Your task to perform on an android device: Show me productivity apps on the Play Store Image 0: 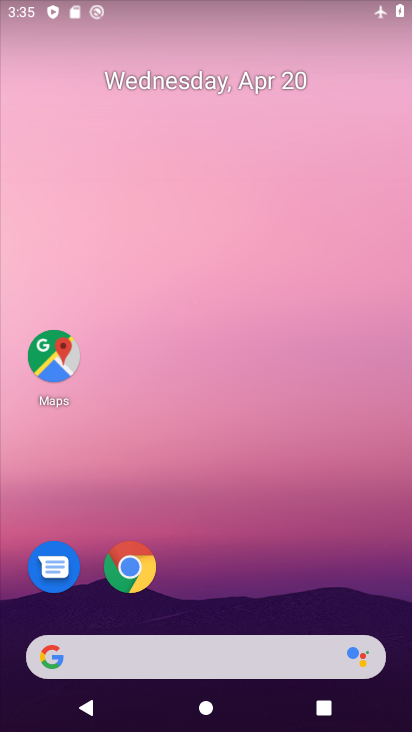
Step 0: drag from (293, 537) to (241, 147)
Your task to perform on an android device: Show me productivity apps on the Play Store Image 1: 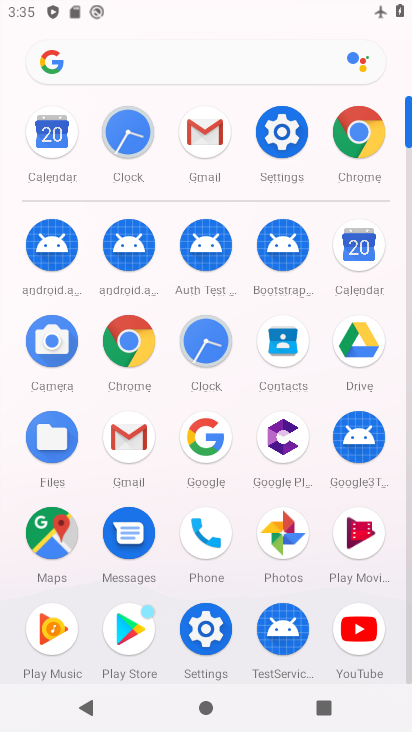
Step 1: click (131, 608)
Your task to perform on an android device: Show me productivity apps on the Play Store Image 2: 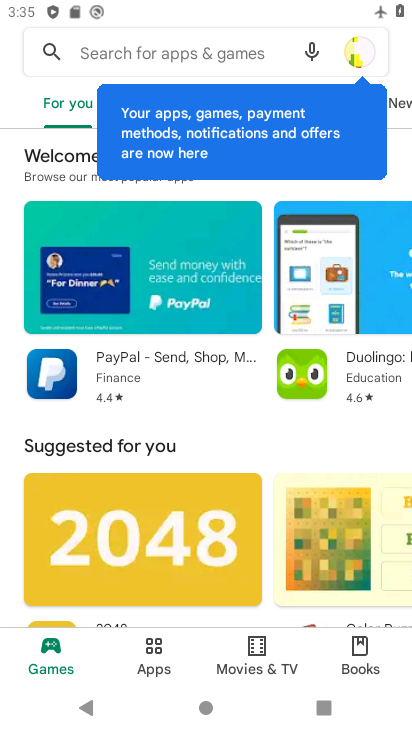
Step 2: click (151, 653)
Your task to perform on an android device: Show me productivity apps on the Play Store Image 3: 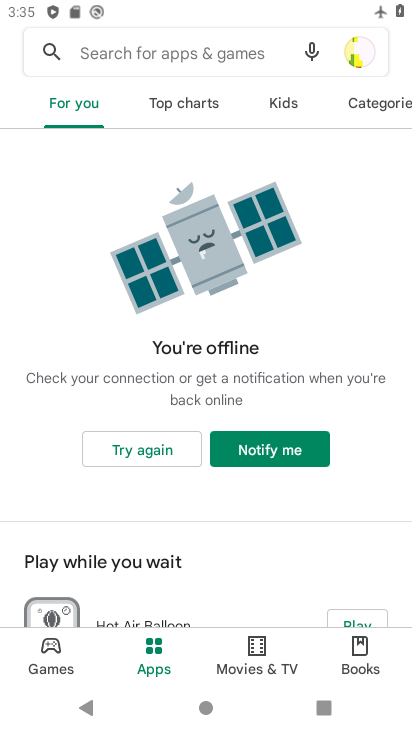
Step 3: task complete